Your task to perform on an android device: Open Google Chrome and open the bookmarks view Image 0: 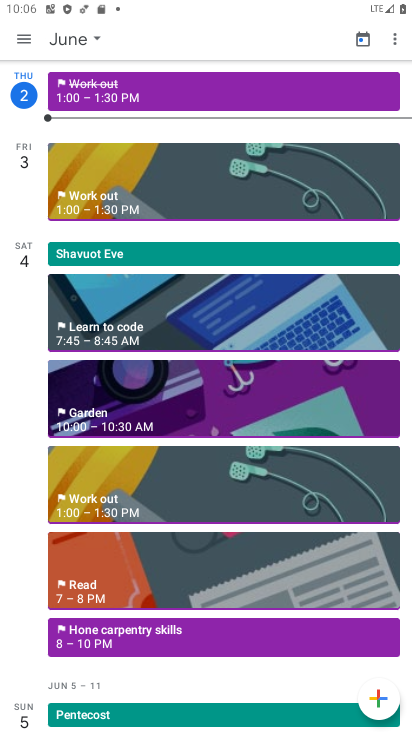
Step 0: press home button
Your task to perform on an android device: Open Google Chrome and open the bookmarks view Image 1: 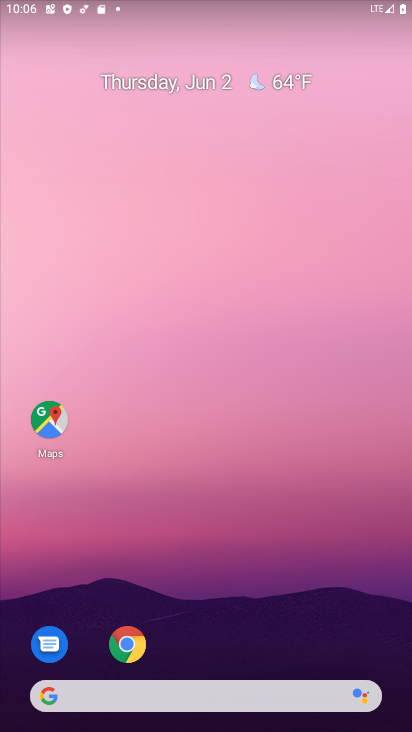
Step 1: click (133, 648)
Your task to perform on an android device: Open Google Chrome and open the bookmarks view Image 2: 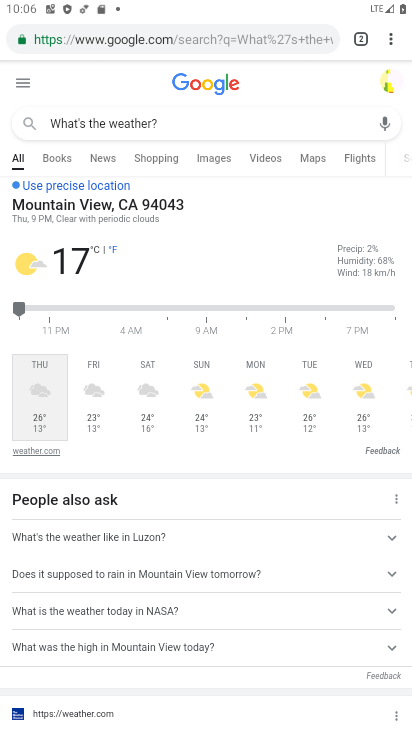
Step 2: drag from (391, 43) to (283, 441)
Your task to perform on an android device: Open Google Chrome and open the bookmarks view Image 3: 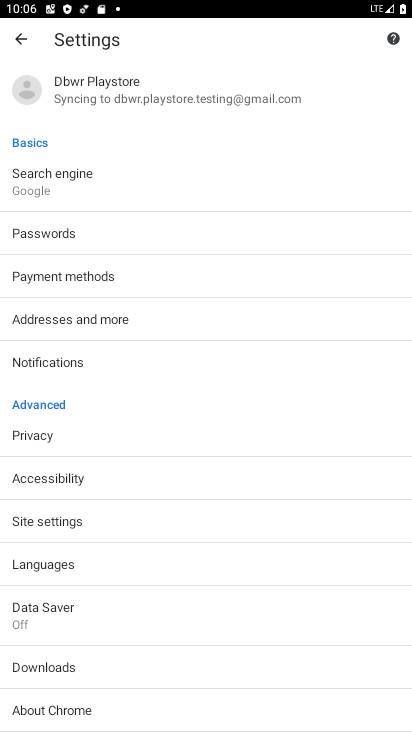
Step 3: click (16, 28)
Your task to perform on an android device: Open Google Chrome and open the bookmarks view Image 4: 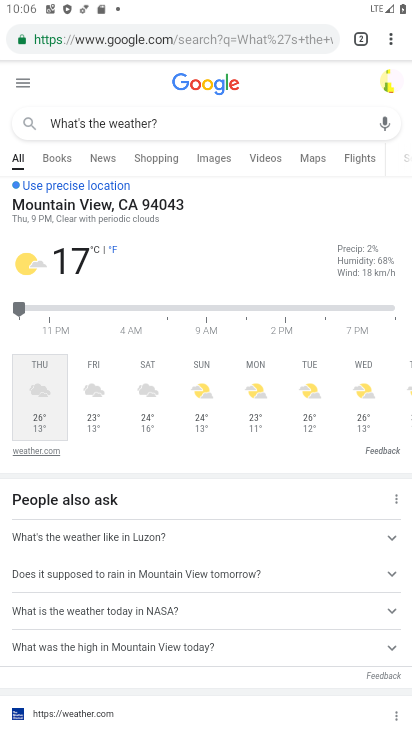
Step 4: task complete